Your task to perform on an android device: Open Maps and search for coffee Image 0: 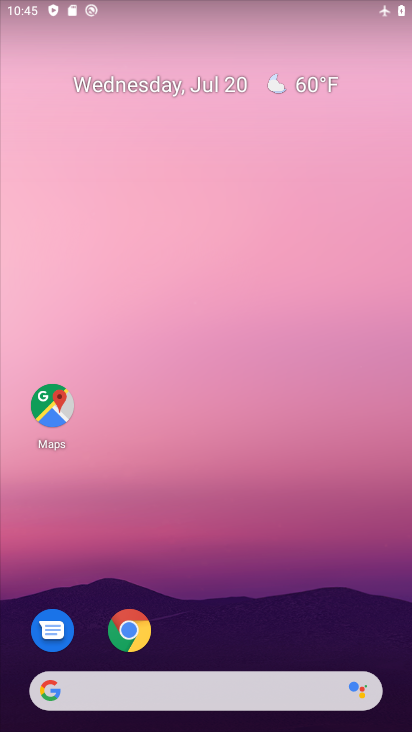
Step 0: click (51, 409)
Your task to perform on an android device: Open Maps and search for coffee Image 1: 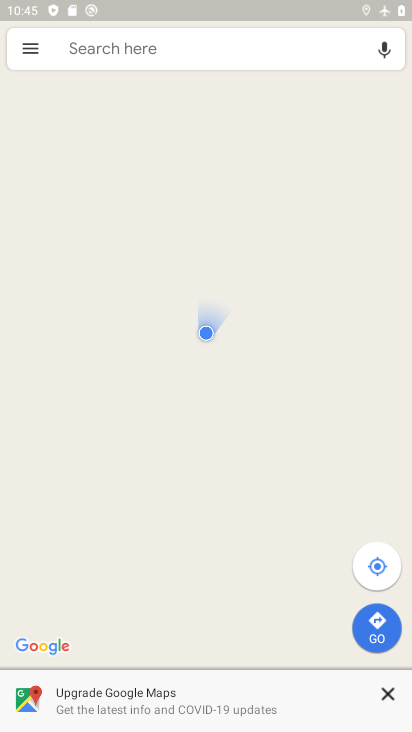
Step 1: click (149, 51)
Your task to perform on an android device: Open Maps and search for coffee Image 2: 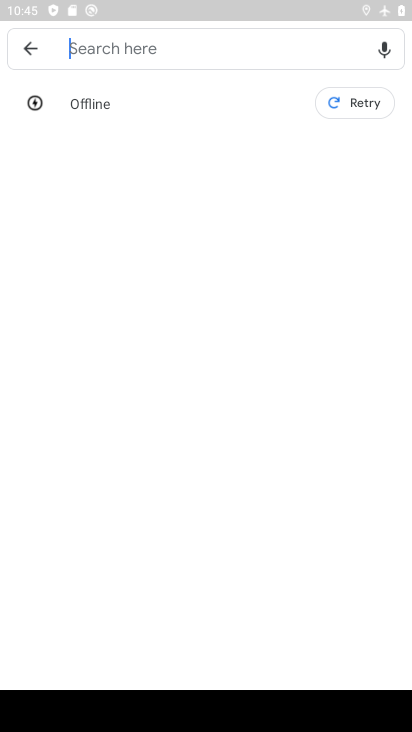
Step 2: type "coffee"
Your task to perform on an android device: Open Maps and search for coffee Image 3: 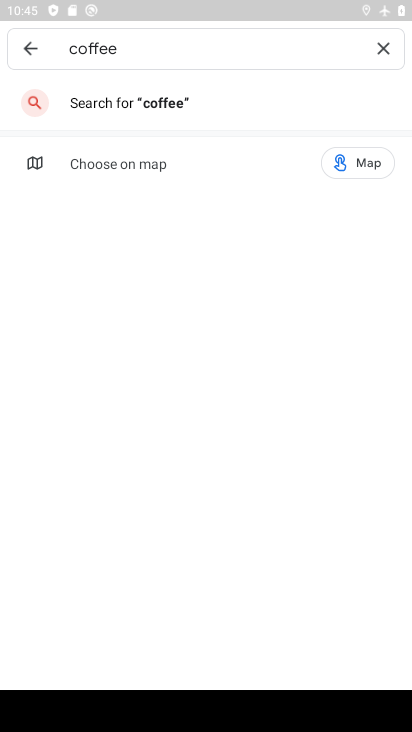
Step 3: click (154, 102)
Your task to perform on an android device: Open Maps and search for coffee Image 4: 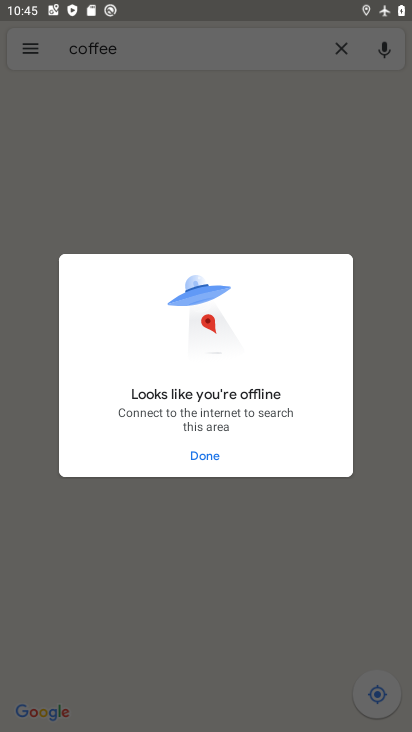
Step 4: task complete